Your task to perform on an android device: Show me popular videos on Youtube Image 0: 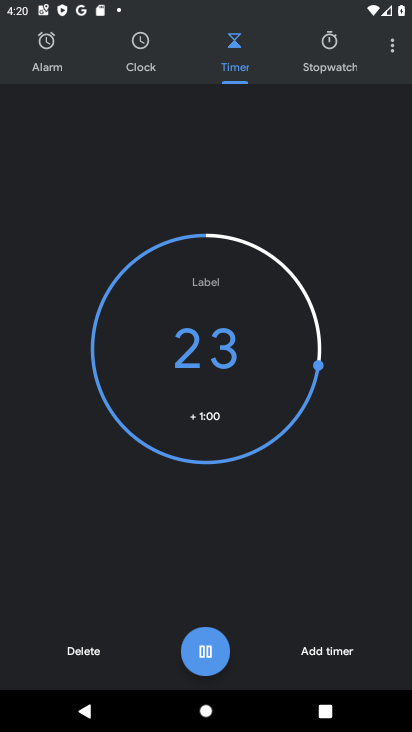
Step 0: press home button
Your task to perform on an android device: Show me popular videos on Youtube Image 1: 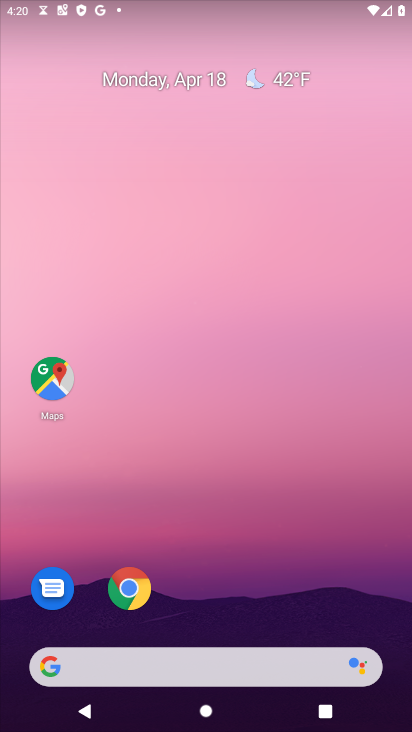
Step 1: drag from (250, 461) to (276, 214)
Your task to perform on an android device: Show me popular videos on Youtube Image 2: 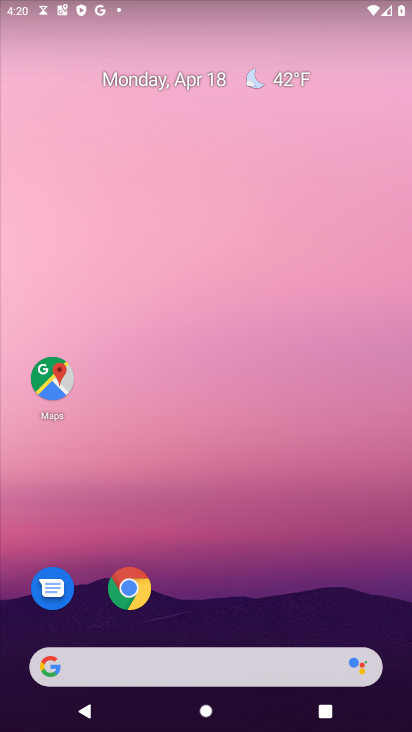
Step 2: drag from (267, 535) to (345, 26)
Your task to perform on an android device: Show me popular videos on Youtube Image 3: 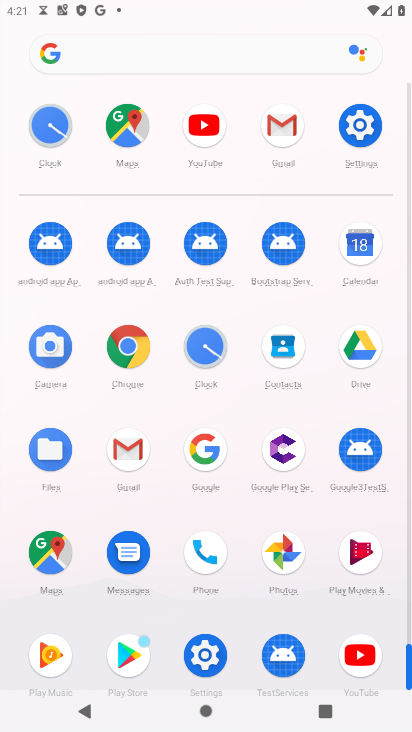
Step 3: click (205, 140)
Your task to perform on an android device: Show me popular videos on Youtube Image 4: 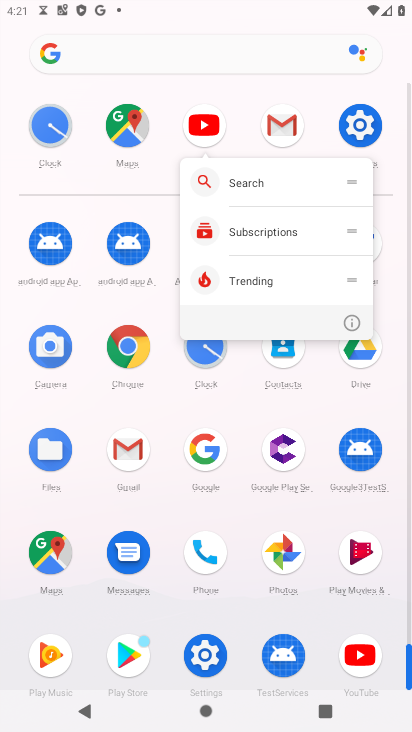
Step 4: click (357, 665)
Your task to perform on an android device: Show me popular videos on Youtube Image 5: 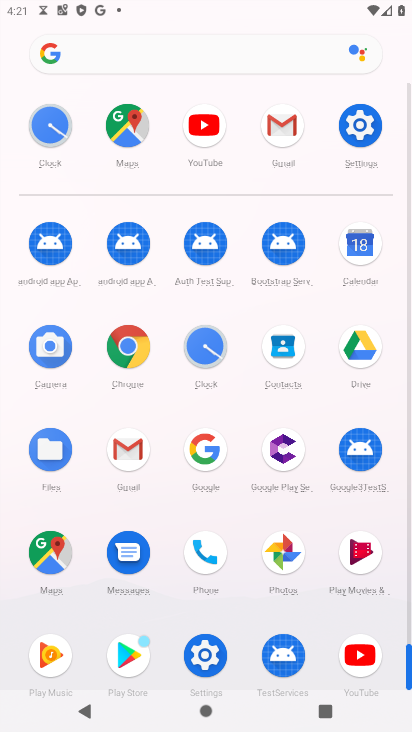
Step 5: click (357, 665)
Your task to perform on an android device: Show me popular videos on Youtube Image 6: 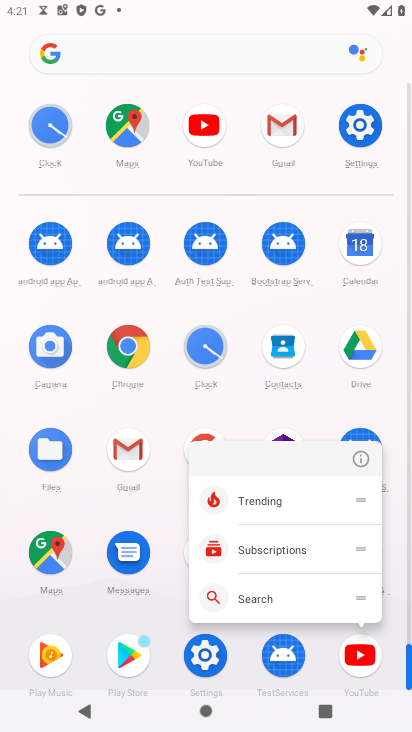
Step 6: click (361, 641)
Your task to perform on an android device: Show me popular videos on Youtube Image 7: 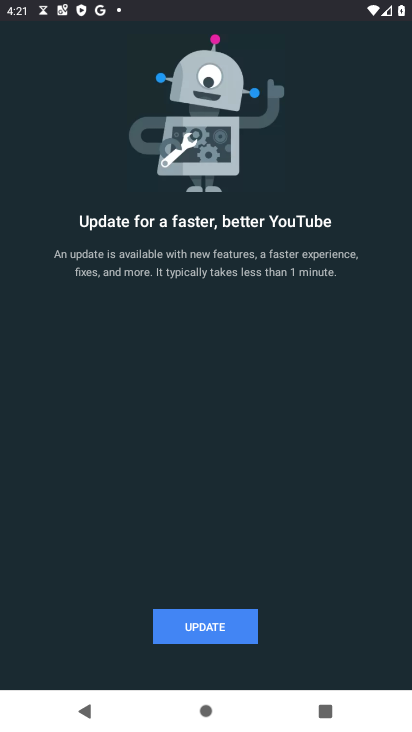
Step 7: click (221, 624)
Your task to perform on an android device: Show me popular videos on Youtube Image 8: 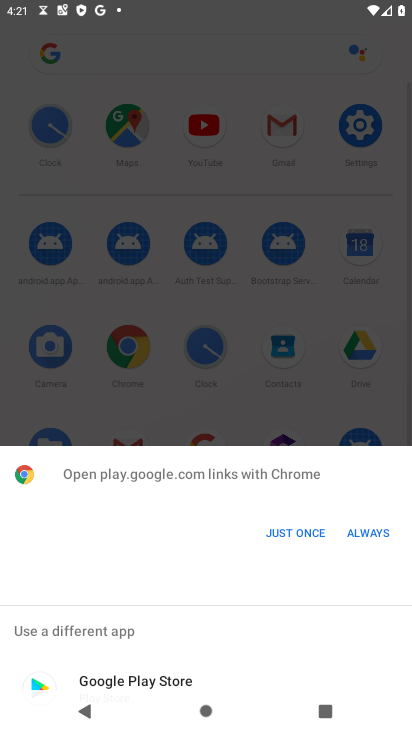
Step 8: click (286, 525)
Your task to perform on an android device: Show me popular videos on Youtube Image 9: 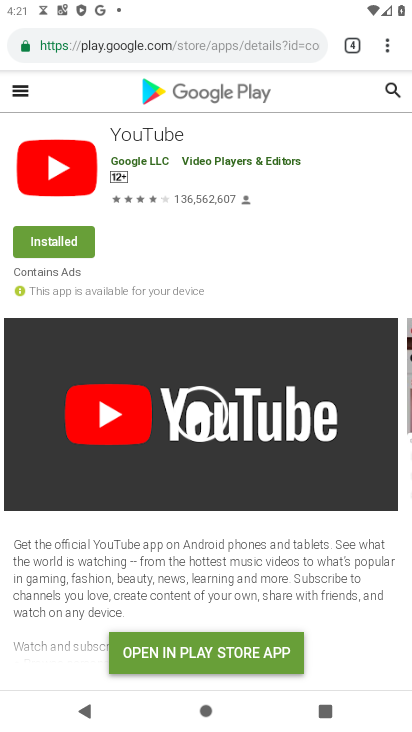
Step 9: click (68, 170)
Your task to perform on an android device: Show me popular videos on Youtube Image 10: 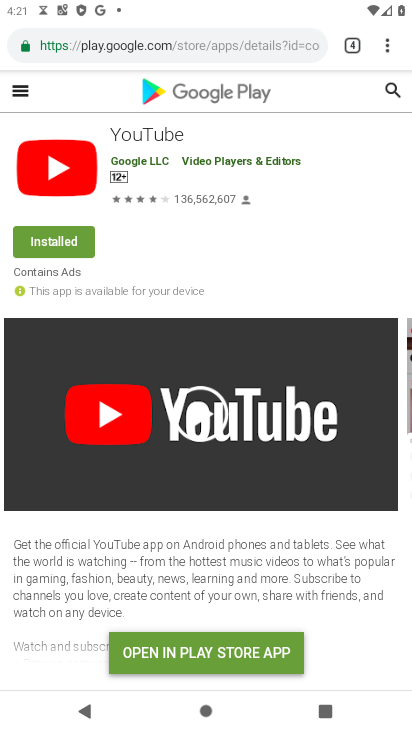
Step 10: task complete